Your task to perform on an android device: Open network settings Image 0: 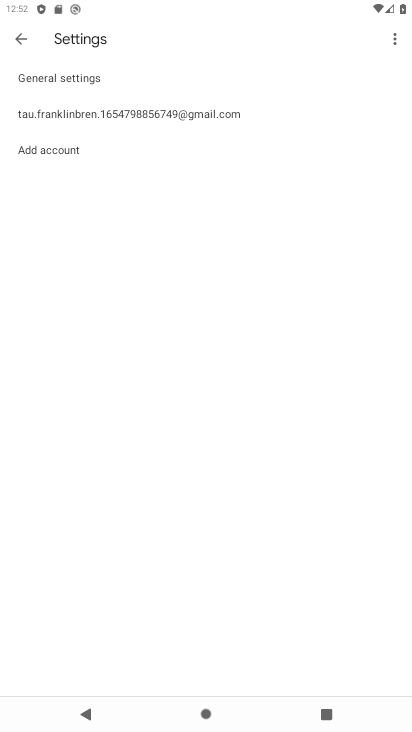
Step 0: press home button
Your task to perform on an android device: Open network settings Image 1: 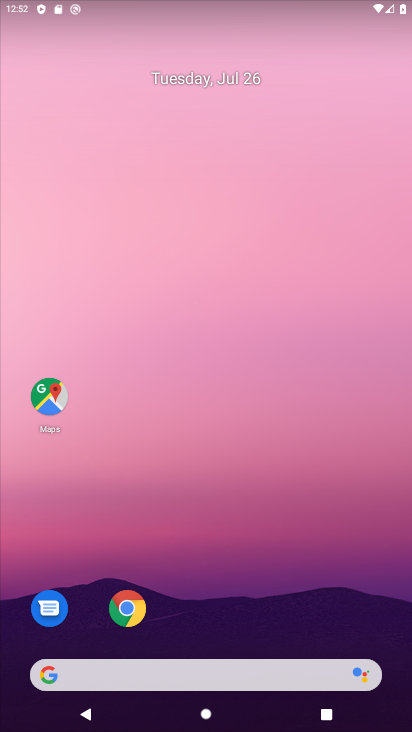
Step 1: drag from (305, 619) to (247, 29)
Your task to perform on an android device: Open network settings Image 2: 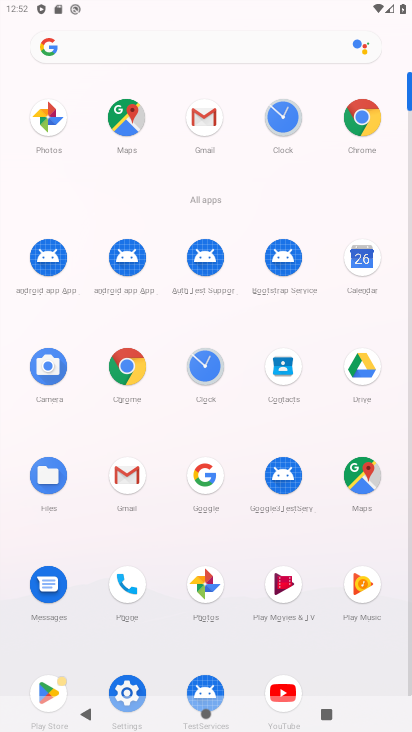
Step 2: click (128, 691)
Your task to perform on an android device: Open network settings Image 3: 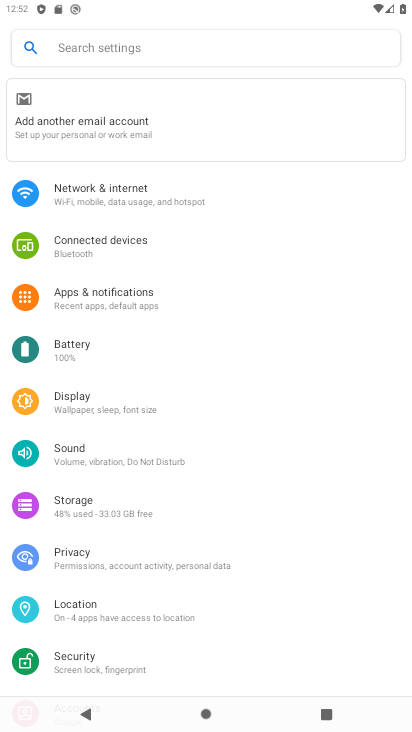
Step 3: click (245, 201)
Your task to perform on an android device: Open network settings Image 4: 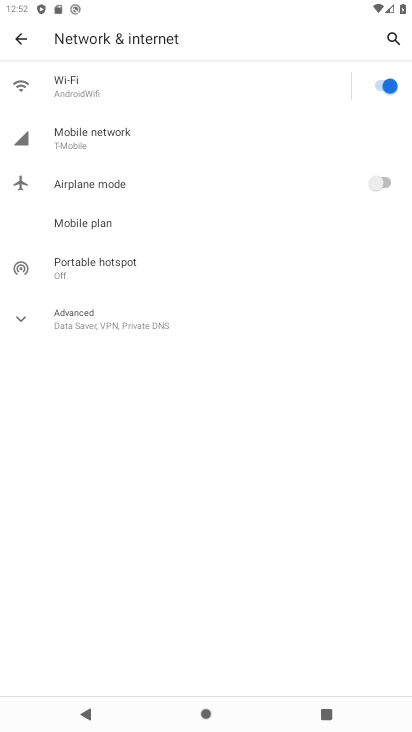
Step 4: task complete